Your task to perform on an android device: stop showing notifications on the lock screen Image 0: 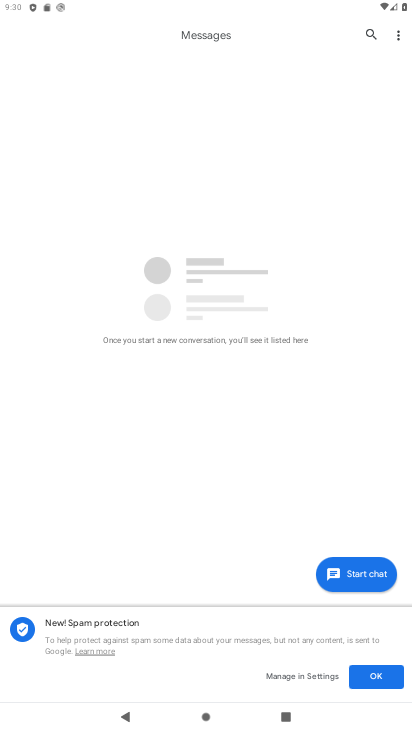
Step 0: press home button
Your task to perform on an android device: stop showing notifications on the lock screen Image 1: 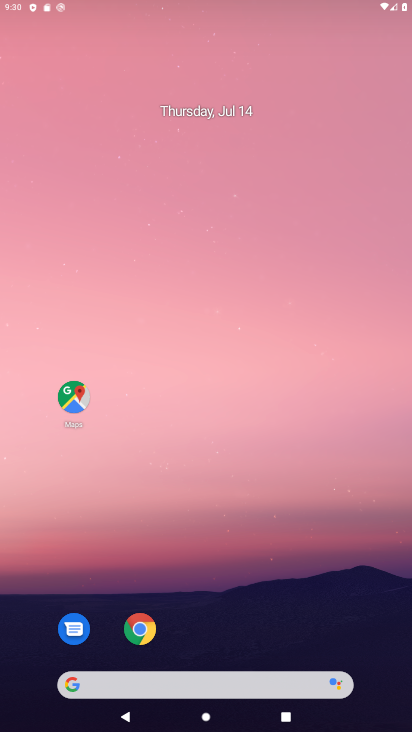
Step 1: drag from (243, 615) to (265, 104)
Your task to perform on an android device: stop showing notifications on the lock screen Image 2: 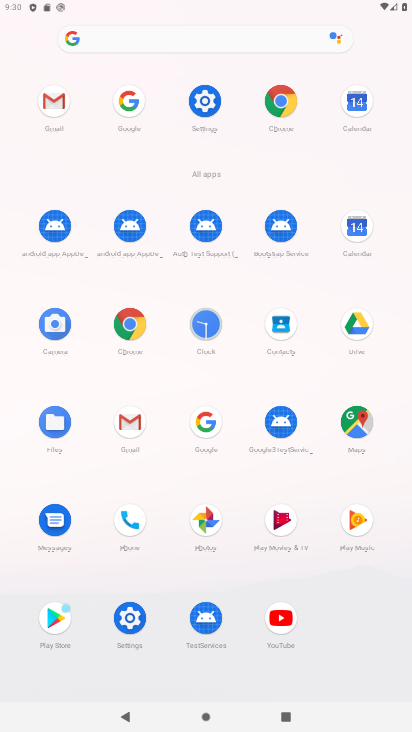
Step 2: click (132, 619)
Your task to perform on an android device: stop showing notifications on the lock screen Image 3: 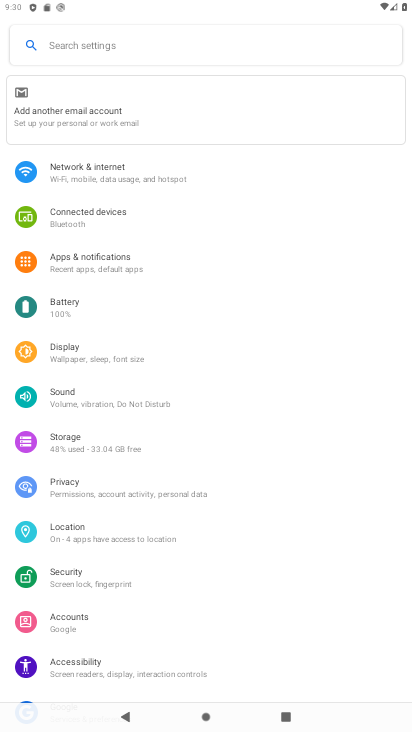
Step 3: click (117, 259)
Your task to perform on an android device: stop showing notifications on the lock screen Image 4: 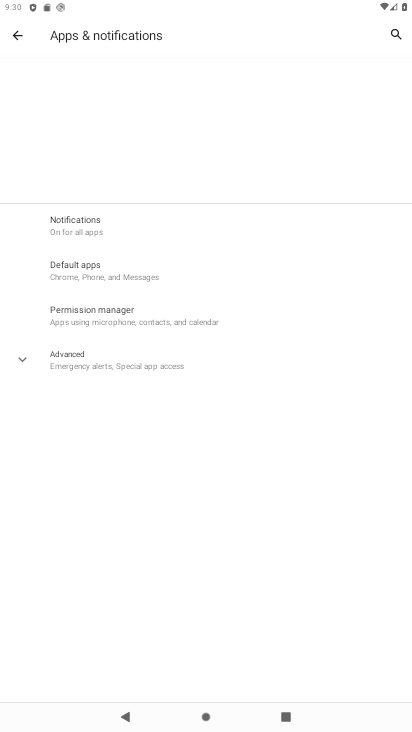
Step 4: click (80, 345)
Your task to perform on an android device: stop showing notifications on the lock screen Image 5: 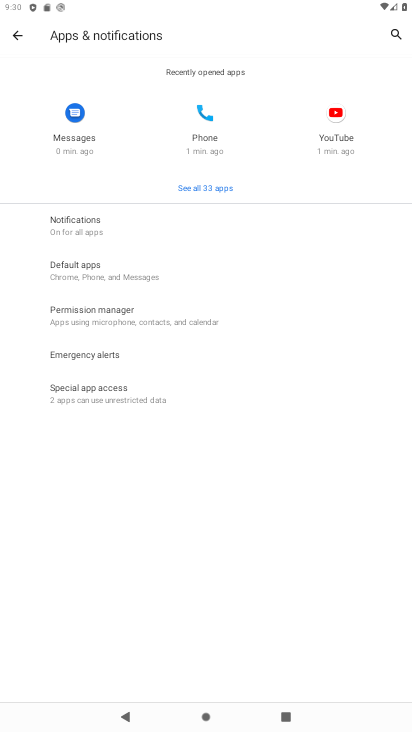
Step 5: click (113, 232)
Your task to perform on an android device: stop showing notifications on the lock screen Image 6: 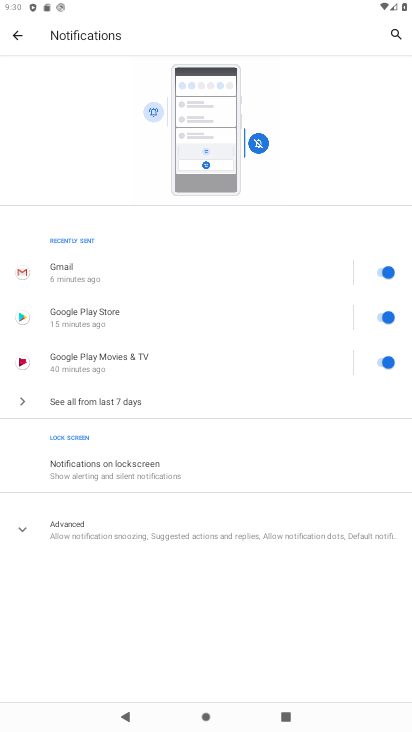
Step 6: click (47, 537)
Your task to perform on an android device: stop showing notifications on the lock screen Image 7: 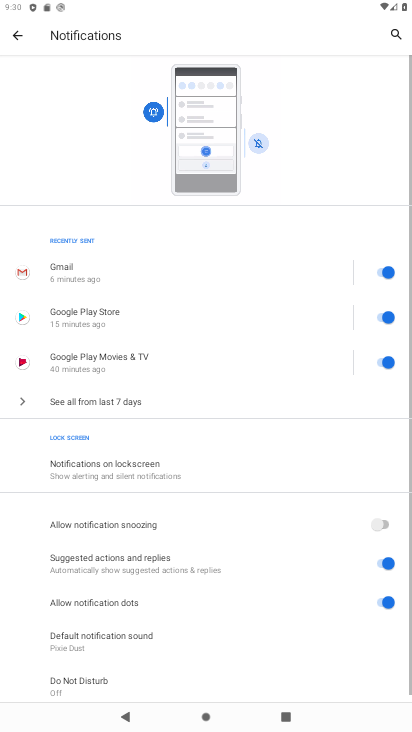
Step 7: click (99, 463)
Your task to perform on an android device: stop showing notifications on the lock screen Image 8: 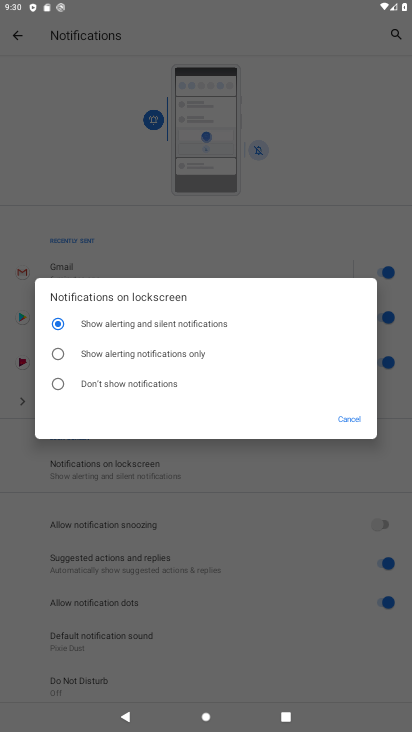
Step 8: click (56, 384)
Your task to perform on an android device: stop showing notifications on the lock screen Image 9: 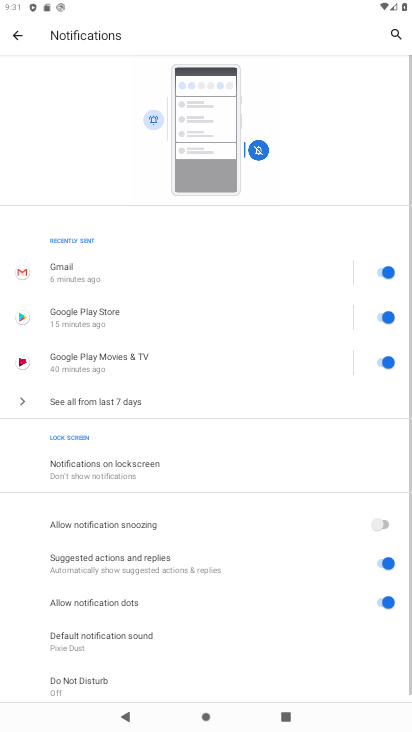
Step 9: task complete